Your task to perform on an android device: toggle pop-ups in chrome Image 0: 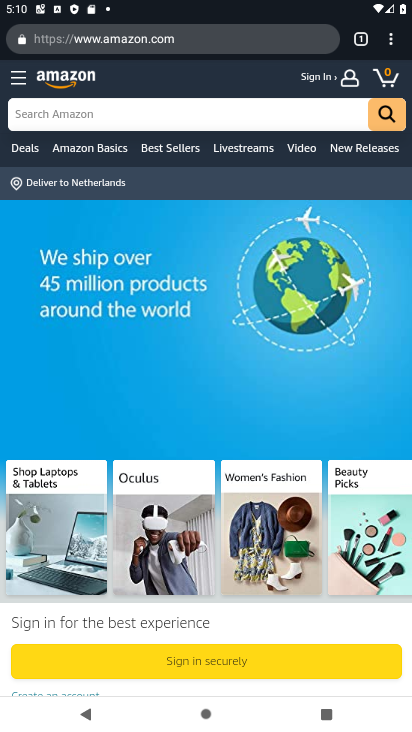
Step 0: press home button
Your task to perform on an android device: toggle pop-ups in chrome Image 1: 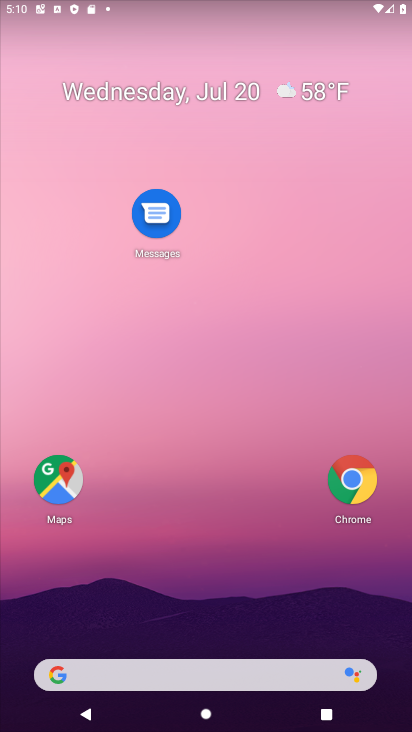
Step 1: click (356, 482)
Your task to perform on an android device: toggle pop-ups in chrome Image 2: 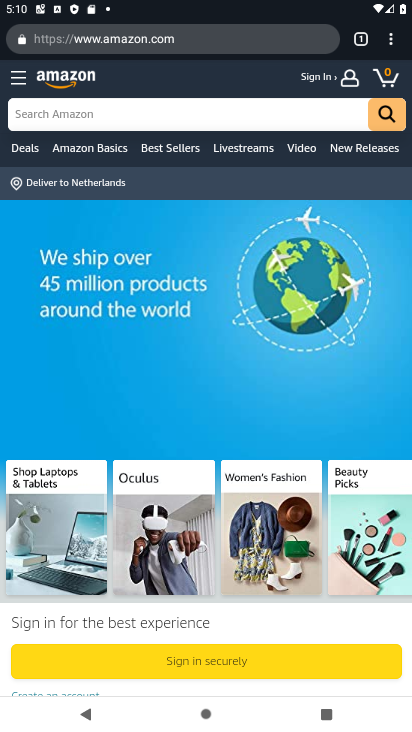
Step 2: click (117, 45)
Your task to perform on an android device: toggle pop-ups in chrome Image 3: 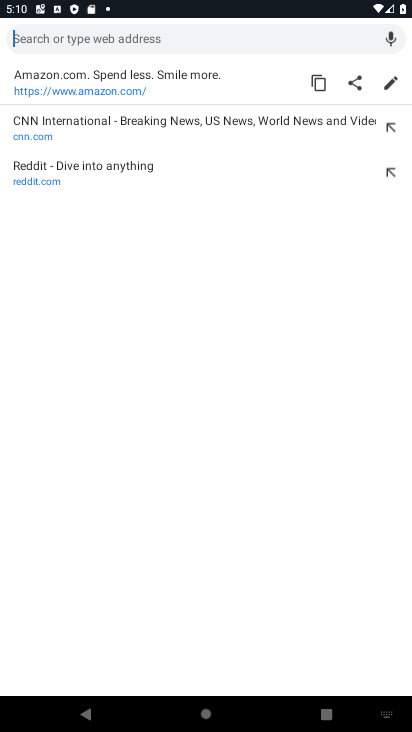
Step 3: type "www.yahoo.com"
Your task to perform on an android device: toggle pop-ups in chrome Image 4: 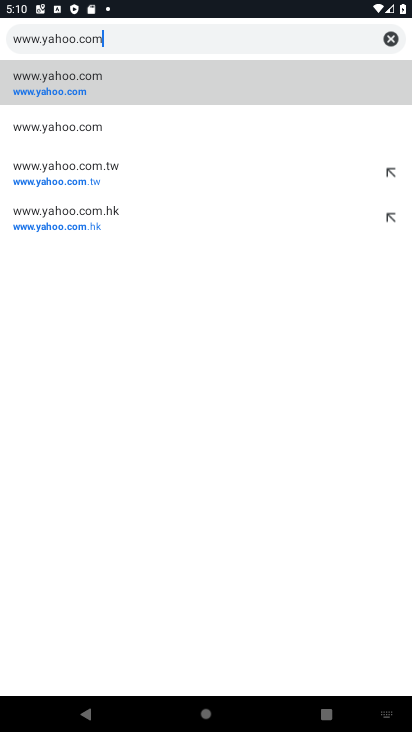
Step 4: click (54, 92)
Your task to perform on an android device: toggle pop-ups in chrome Image 5: 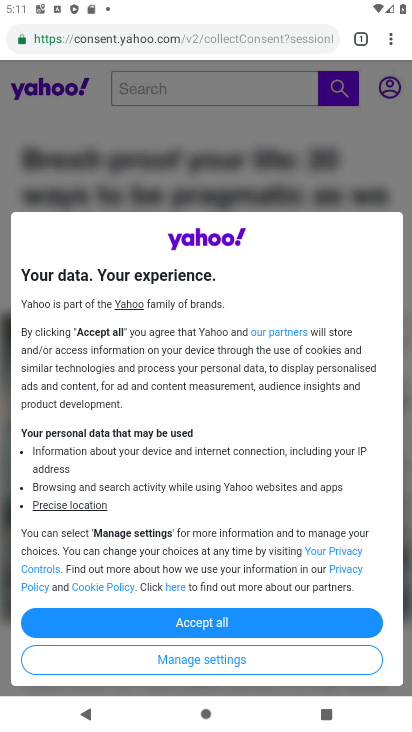
Step 5: task complete